Your task to perform on an android device: toggle improve location accuracy Image 0: 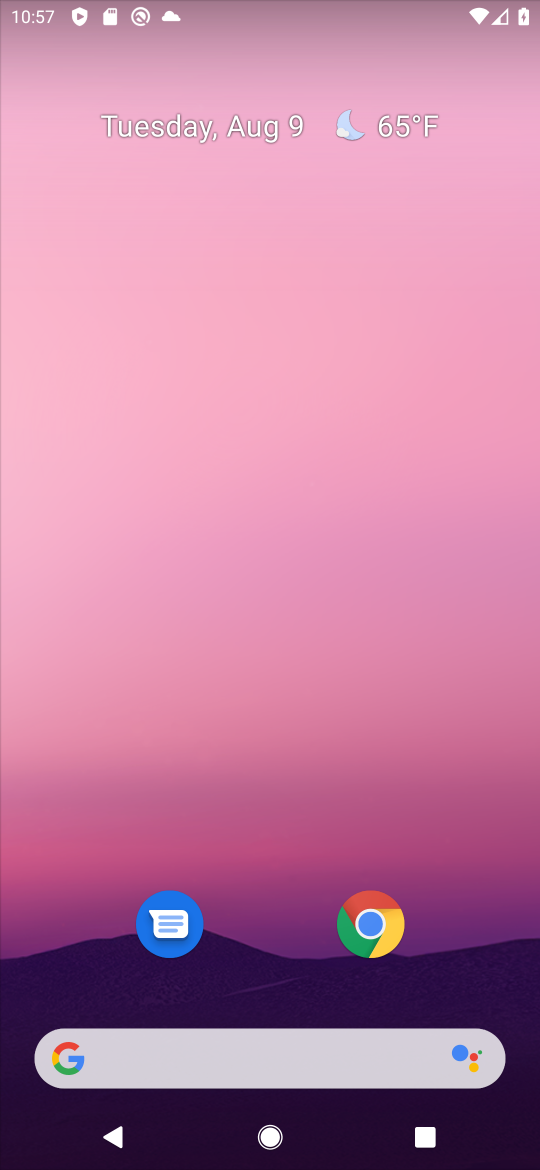
Step 0: drag from (295, 866) to (309, 115)
Your task to perform on an android device: toggle improve location accuracy Image 1: 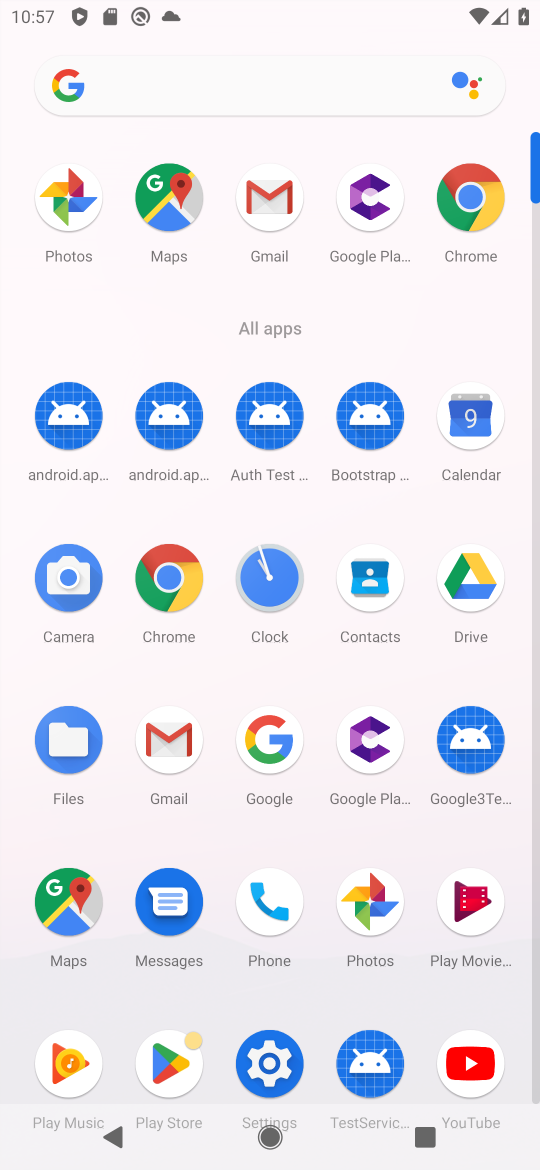
Step 1: click (282, 1059)
Your task to perform on an android device: toggle improve location accuracy Image 2: 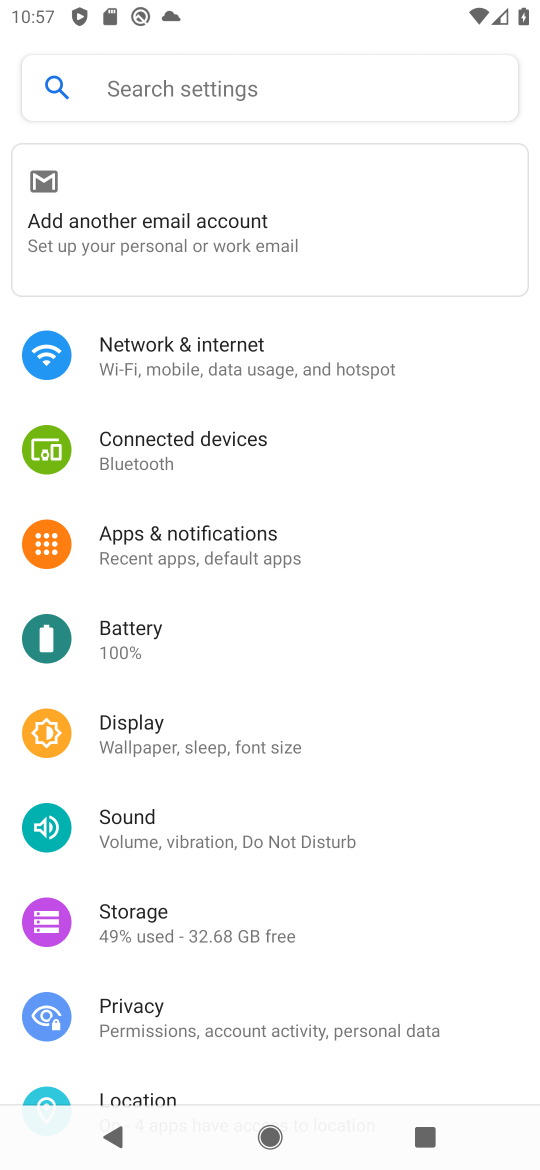
Step 2: drag from (258, 1061) to (231, 564)
Your task to perform on an android device: toggle improve location accuracy Image 3: 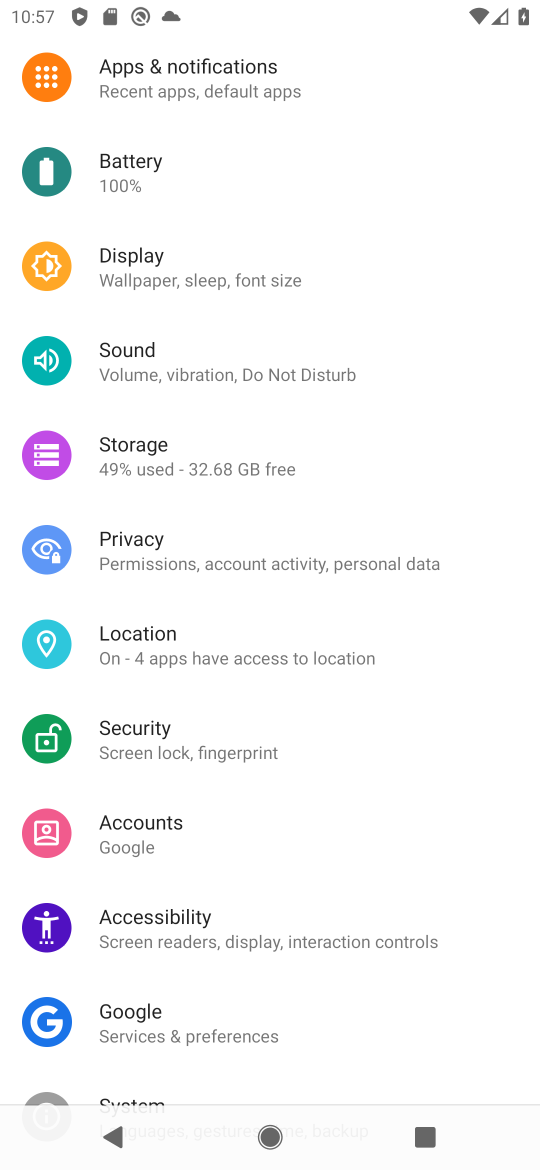
Step 3: click (235, 645)
Your task to perform on an android device: toggle improve location accuracy Image 4: 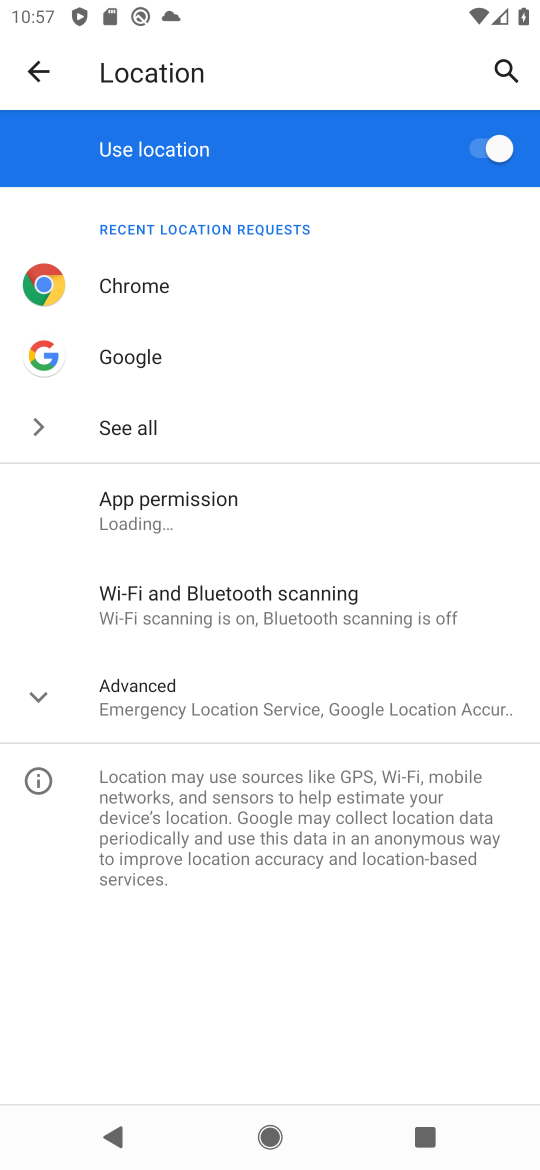
Step 4: click (177, 706)
Your task to perform on an android device: toggle improve location accuracy Image 5: 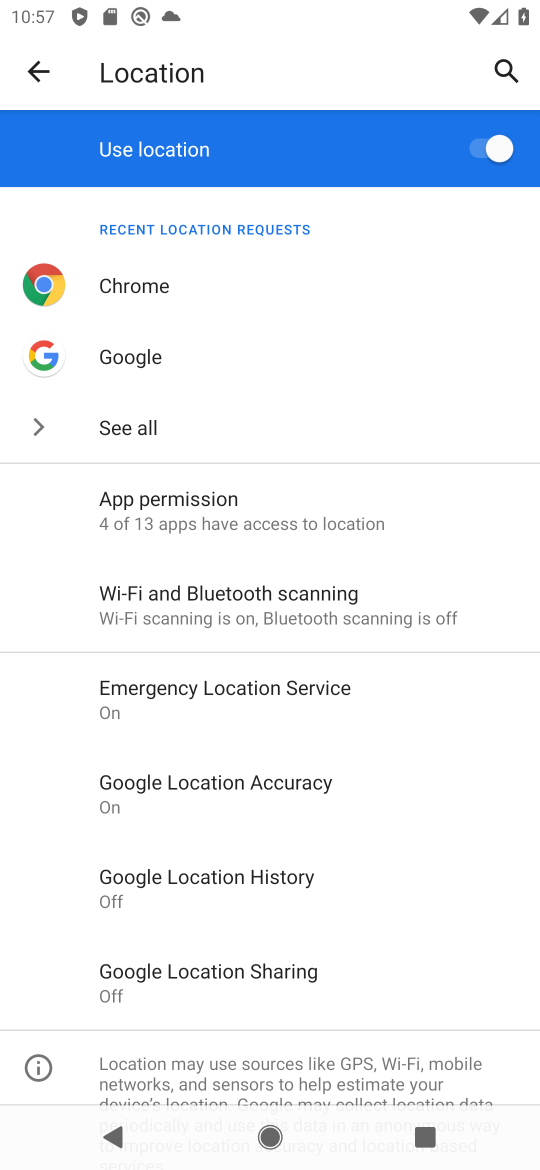
Step 5: click (265, 763)
Your task to perform on an android device: toggle improve location accuracy Image 6: 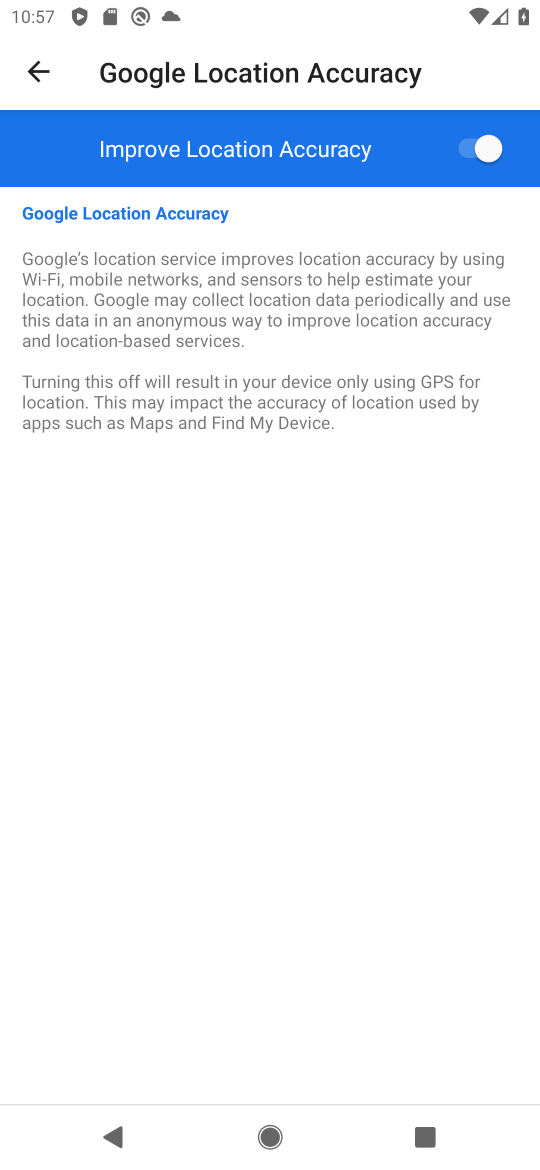
Step 6: click (333, 141)
Your task to perform on an android device: toggle improve location accuracy Image 7: 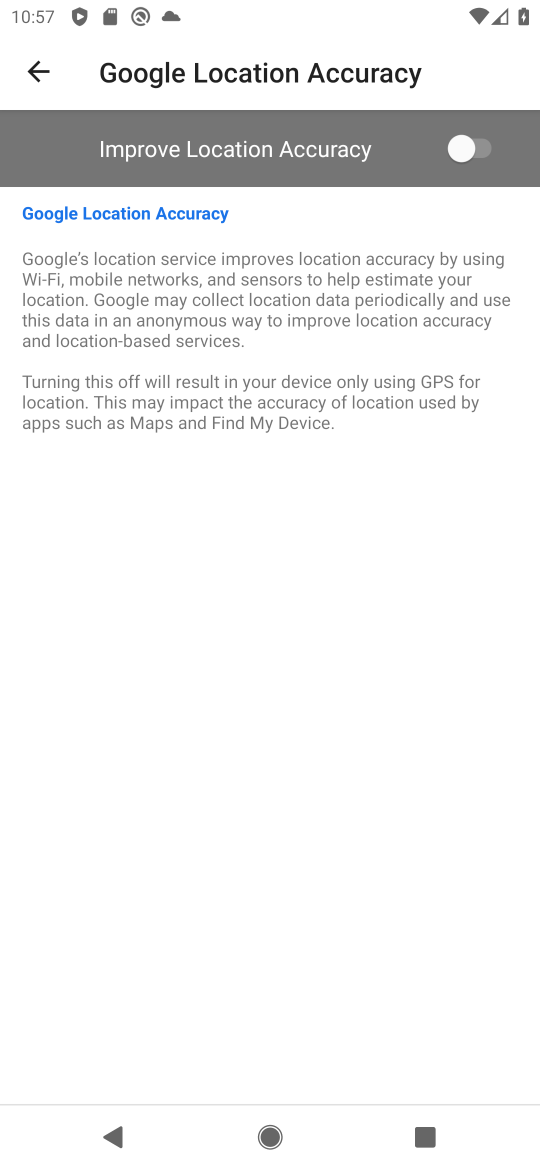
Step 7: task complete